Your task to perform on an android device: What's US dollar exchange rate against the Chinese Yuan? Image 0: 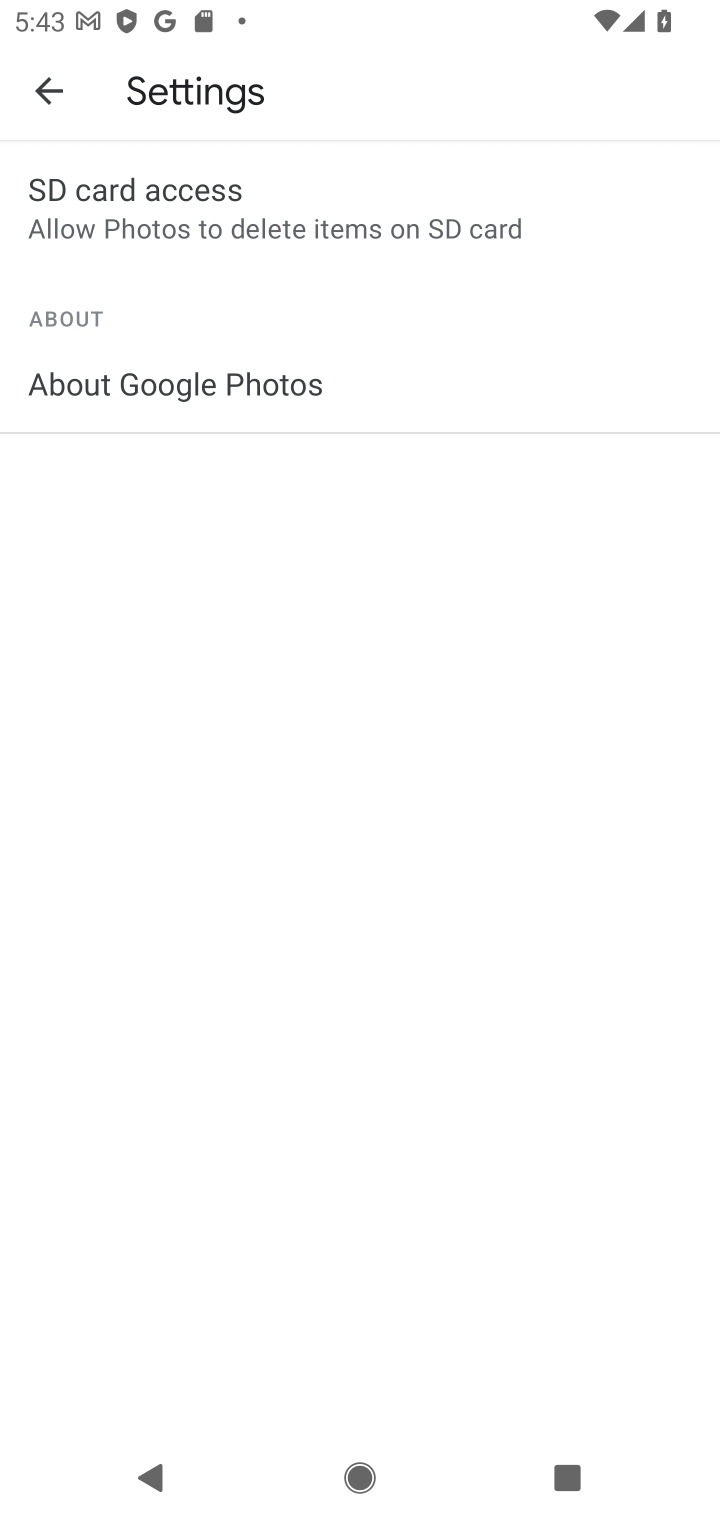
Step 0: press home button
Your task to perform on an android device: What's US dollar exchange rate against the Chinese Yuan? Image 1: 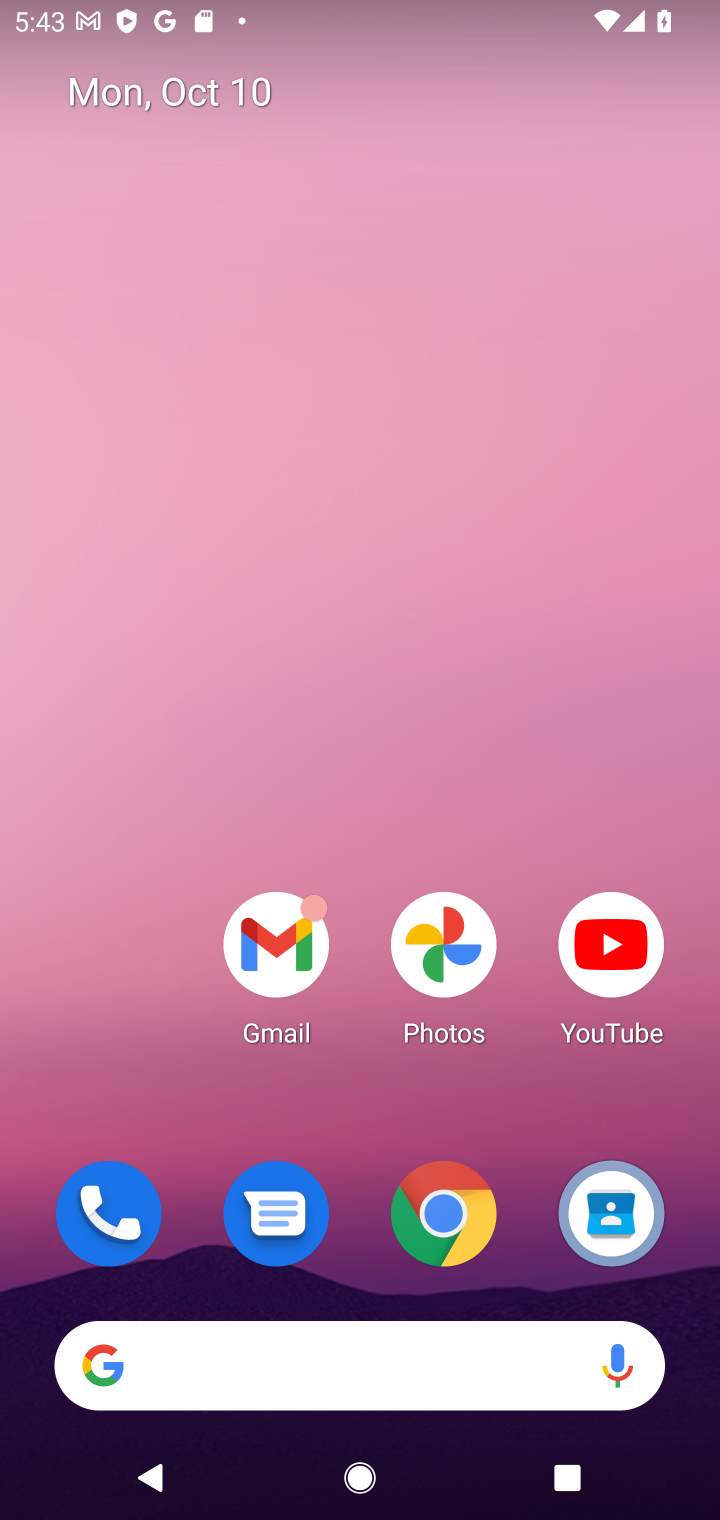
Step 1: click (266, 1348)
Your task to perform on an android device: What's US dollar exchange rate against the Chinese Yuan? Image 2: 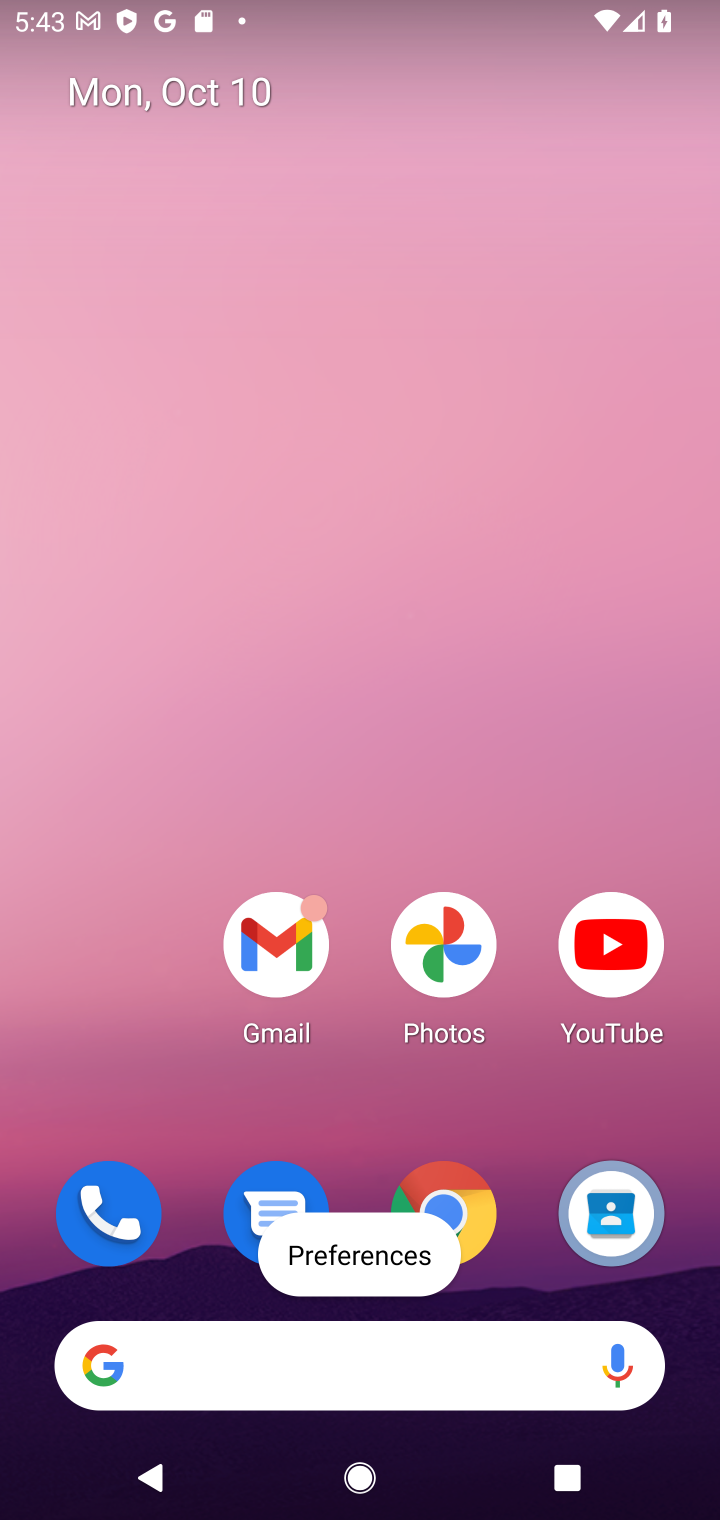
Step 2: click (375, 1389)
Your task to perform on an android device: What's US dollar exchange rate against the Chinese Yuan? Image 3: 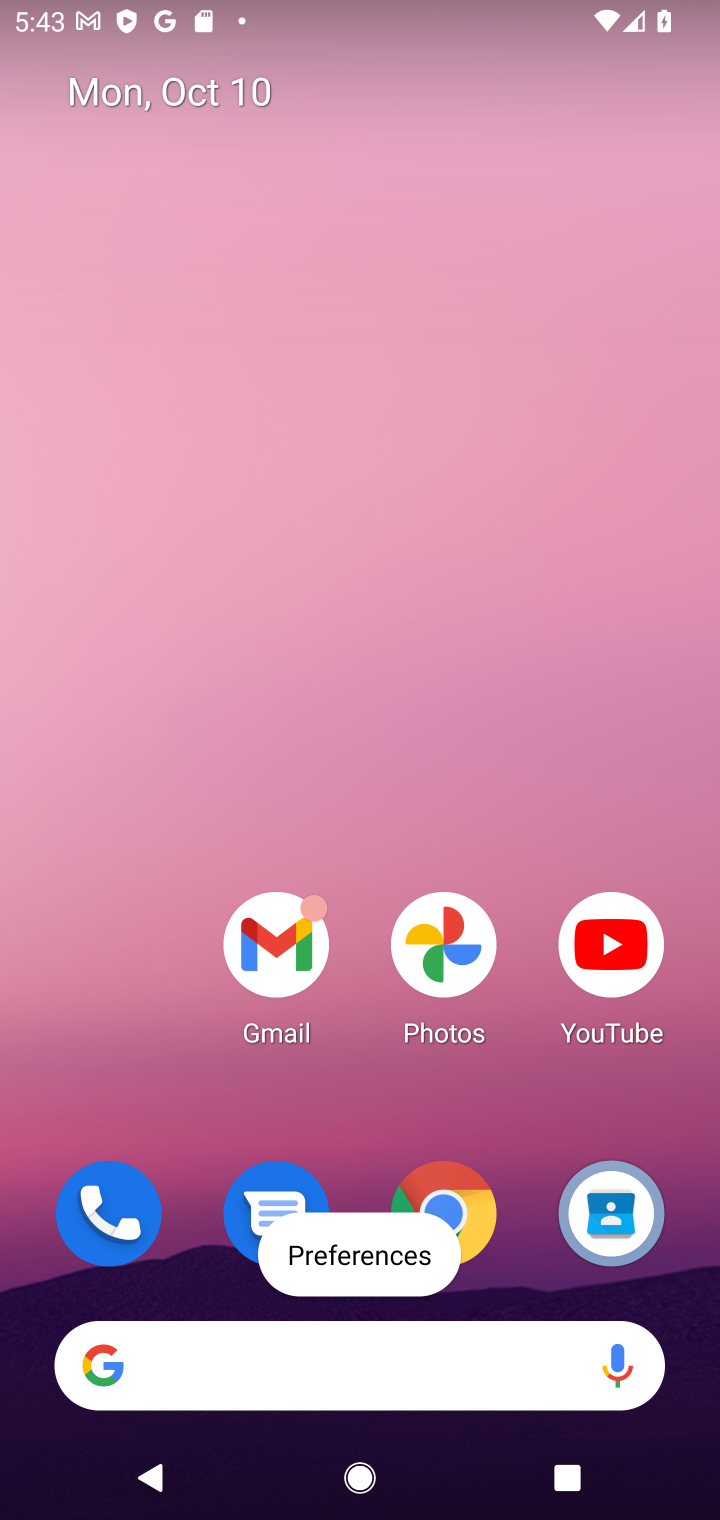
Step 3: click (375, 1389)
Your task to perform on an android device: What's US dollar exchange rate against the Chinese Yuan? Image 4: 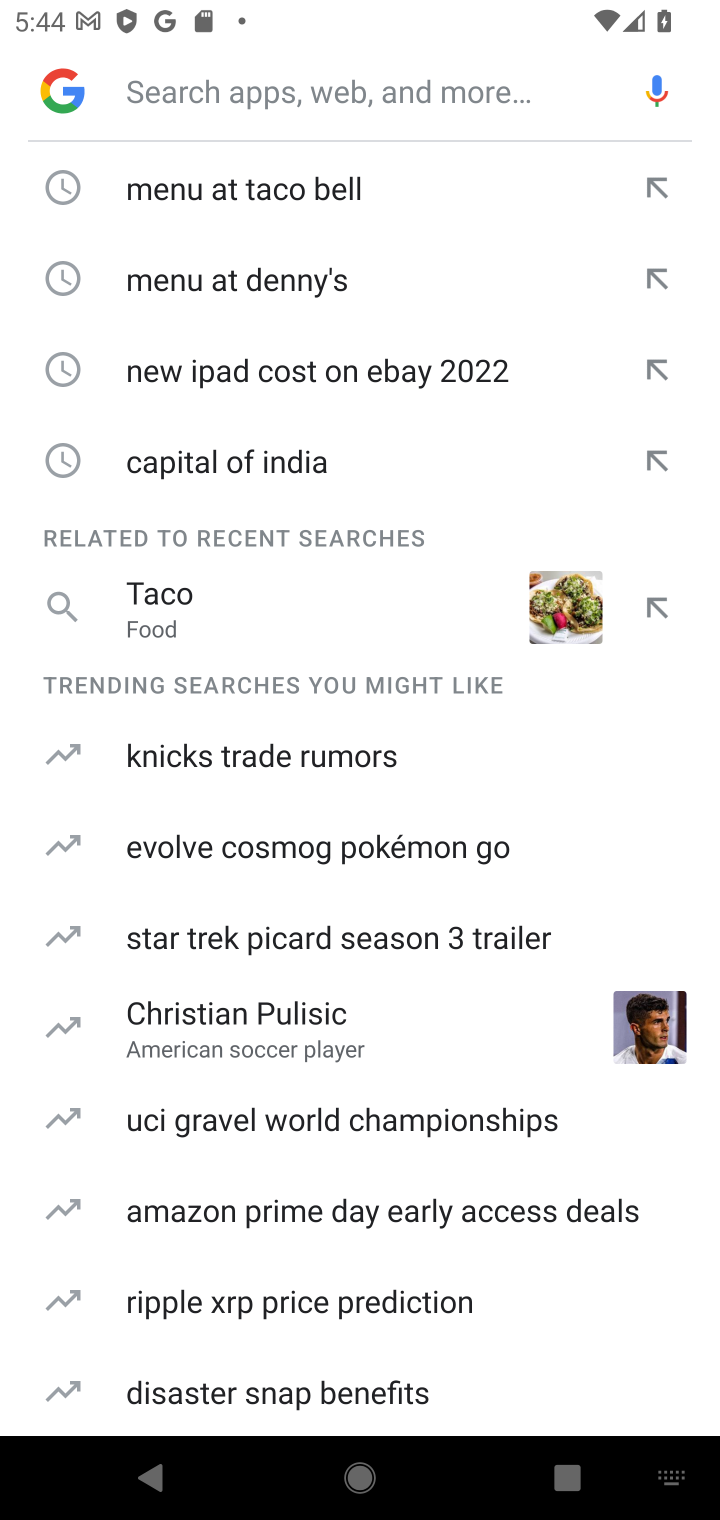
Step 4: type "US dollar exchange rate against the Chinese Yuan"
Your task to perform on an android device: What's US dollar exchange rate against the Chinese Yuan? Image 5: 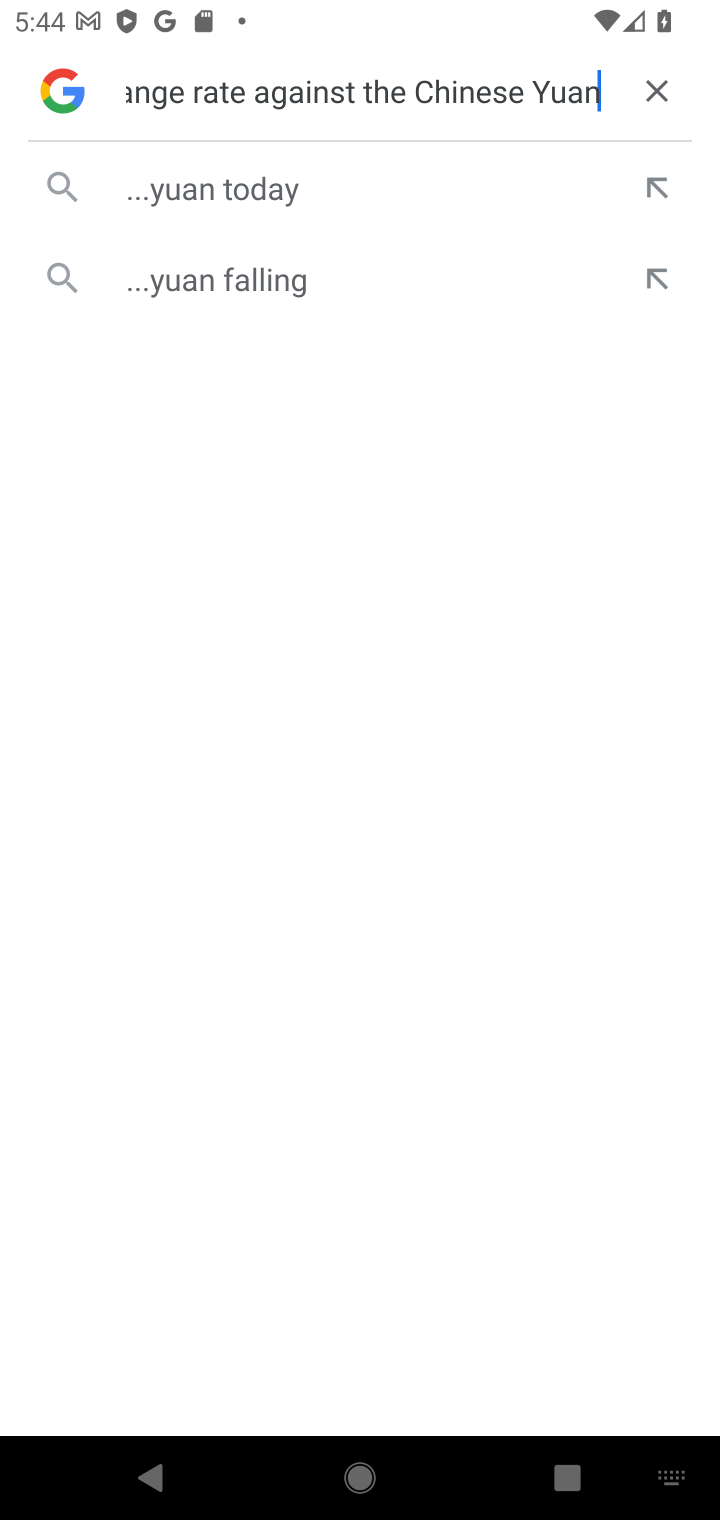
Step 5: click (258, 171)
Your task to perform on an android device: What's US dollar exchange rate against the Chinese Yuan? Image 6: 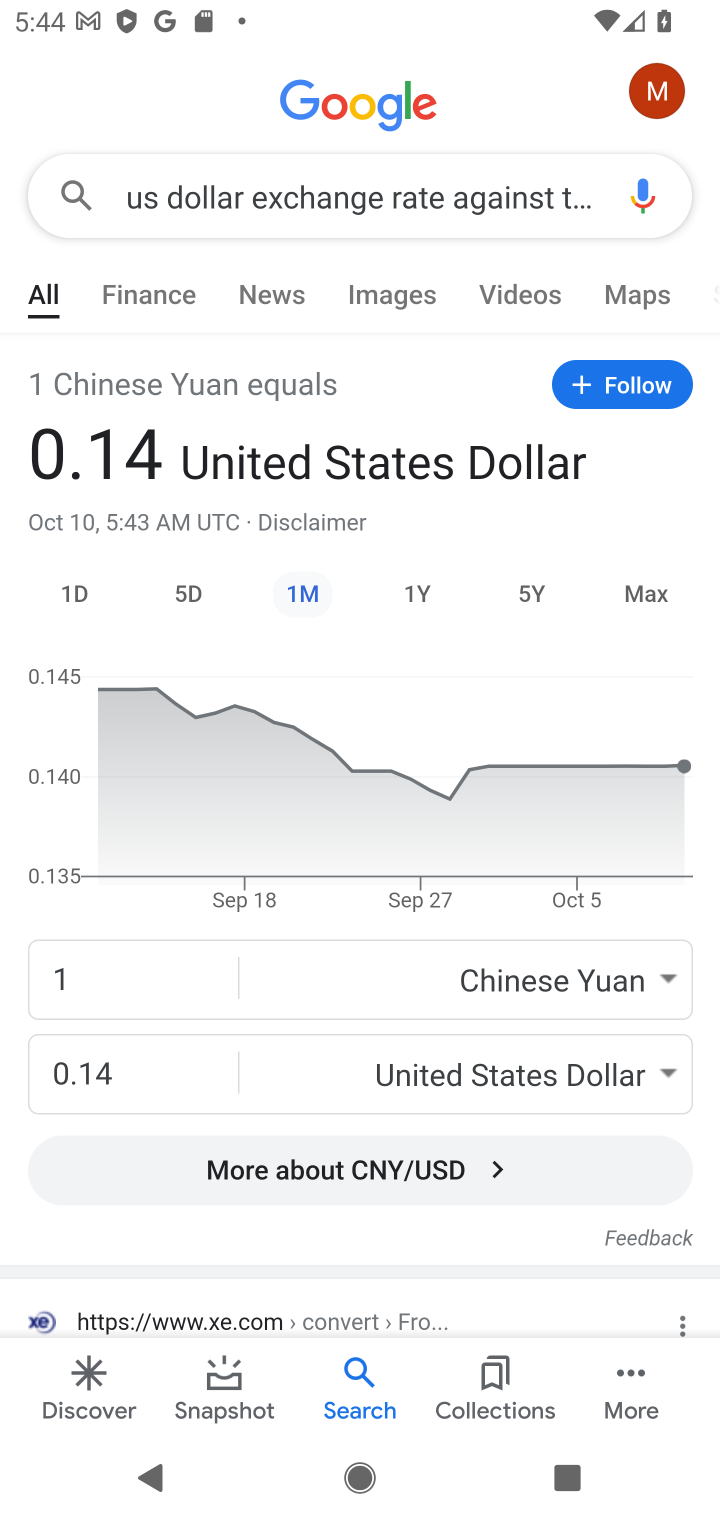
Step 6: task complete